Your task to perform on an android device: delete the emails in spam in the gmail app Image 0: 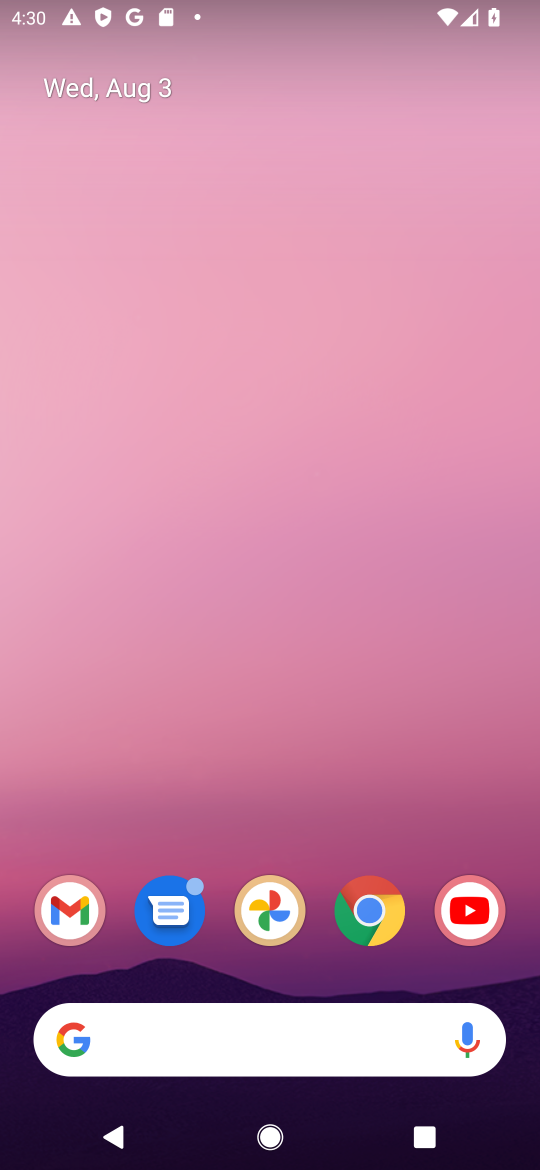
Step 0: click (73, 923)
Your task to perform on an android device: delete the emails in spam in the gmail app Image 1: 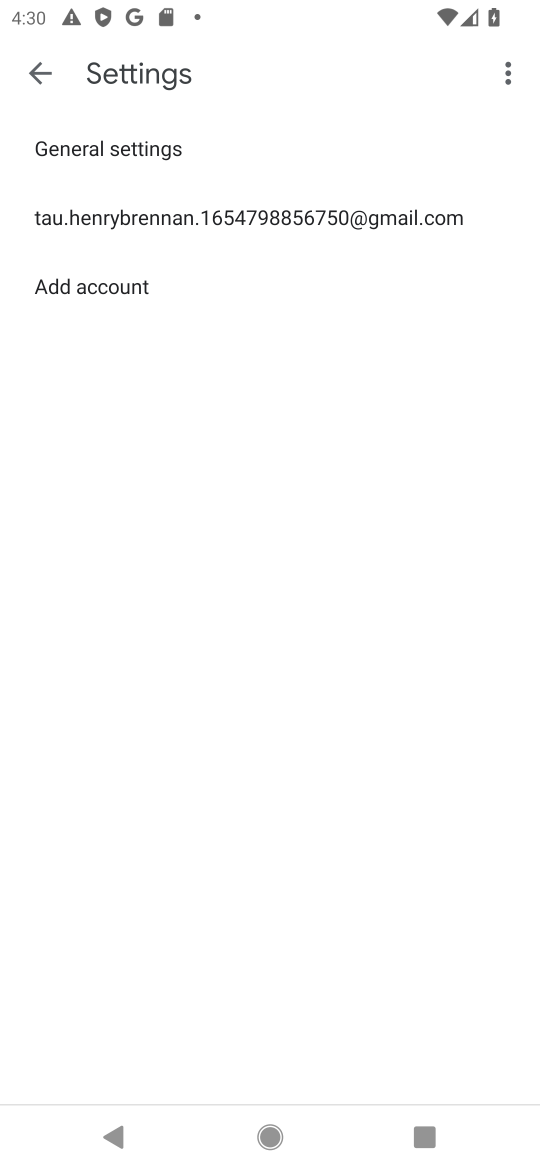
Step 1: click (30, 73)
Your task to perform on an android device: delete the emails in spam in the gmail app Image 2: 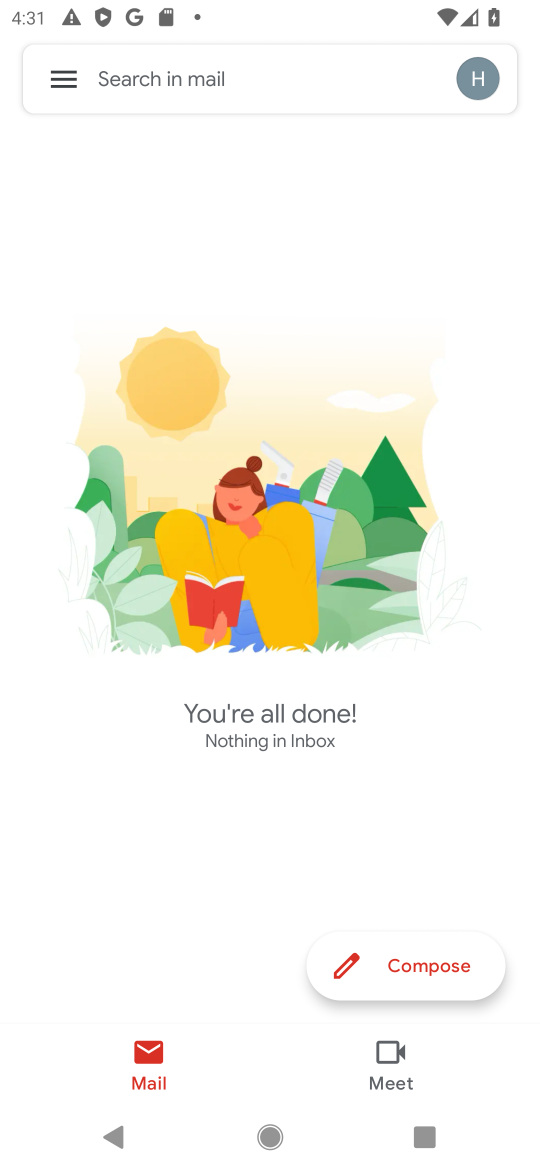
Step 2: click (76, 71)
Your task to perform on an android device: delete the emails in spam in the gmail app Image 3: 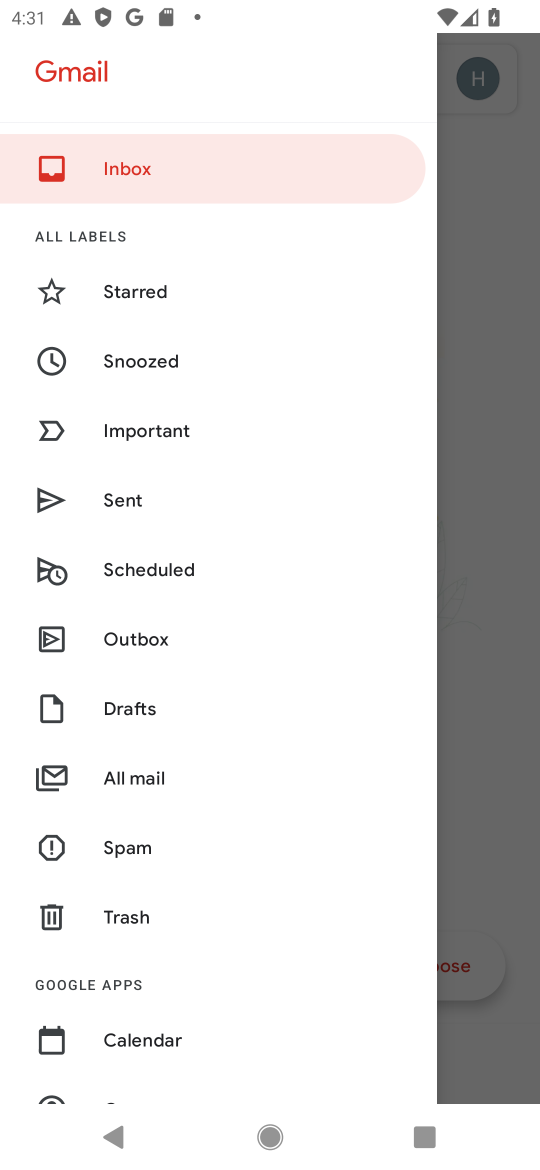
Step 3: click (165, 849)
Your task to perform on an android device: delete the emails in spam in the gmail app Image 4: 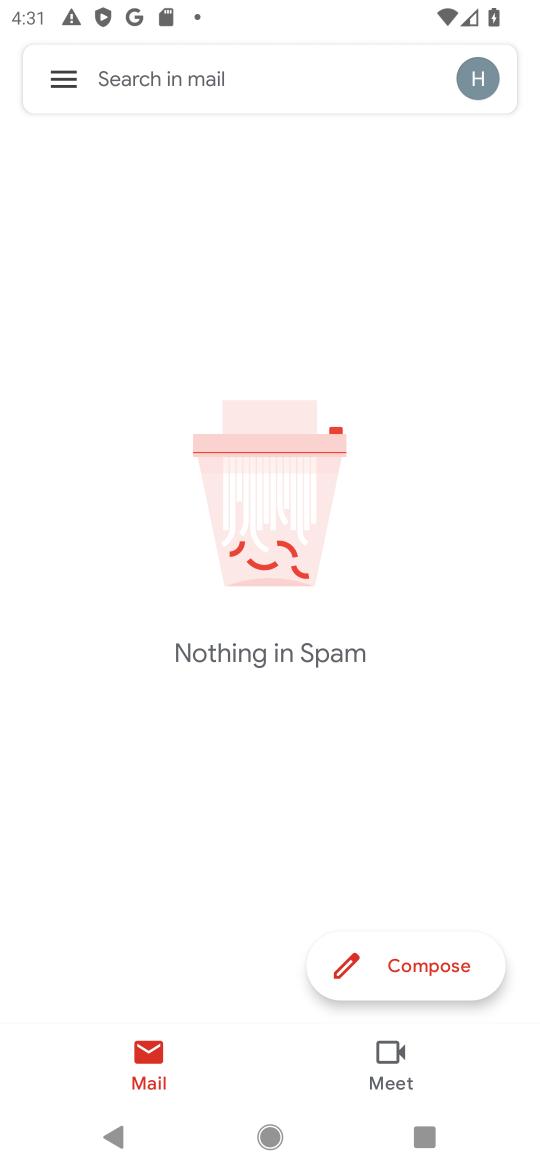
Step 4: task complete